Your task to perform on an android device: When is my next meeting? Image 0: 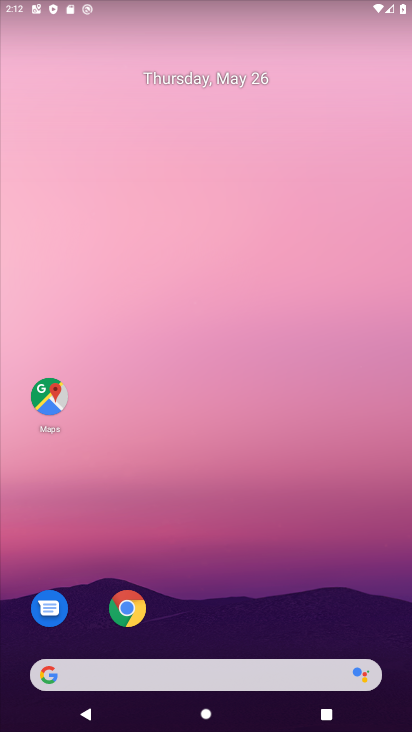
Step 0: drag from (295, 568) to (341, 112)
Your task to perform on an android device: When is my next meeting? Image 1: 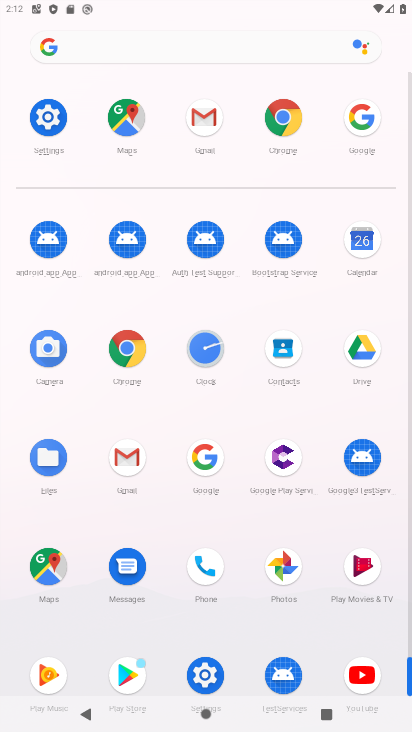
Step 1: click (377, 247)
Your task to perform on an android device: When is my next meeting? Image 2: 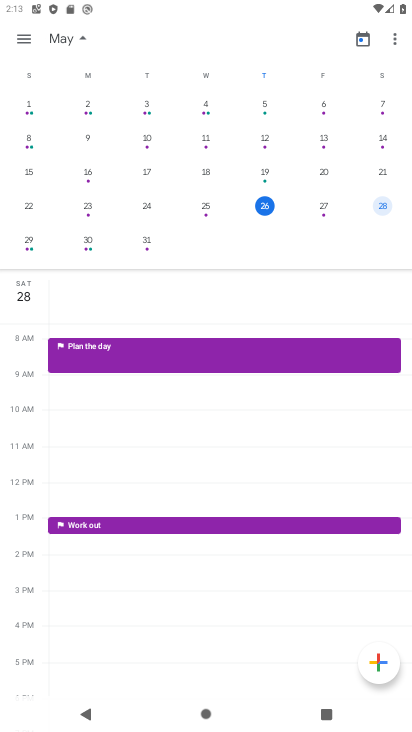
Step 2: click (328, 215)
Your task to perform on an android device: When is my next meeting? Image 3: 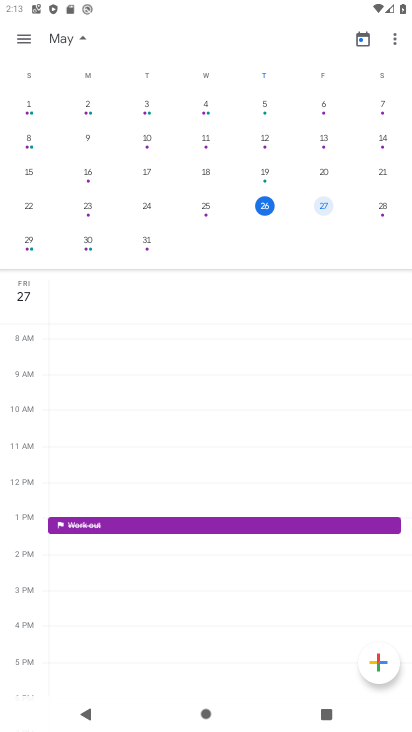
Step 3: task complete